Your task to perform on an android device: turn off smart reply in the gmail app Image 0: 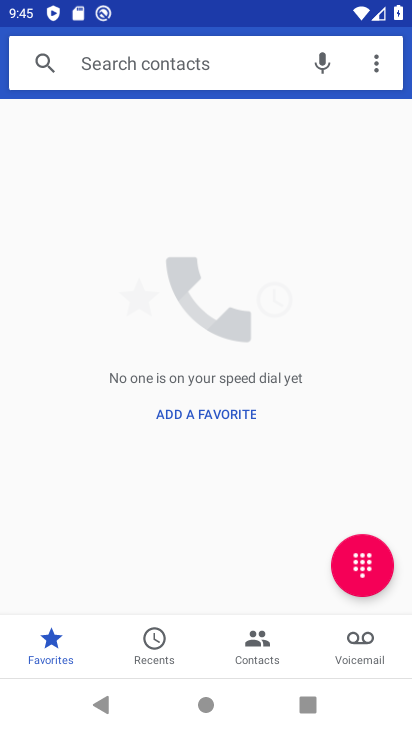
Step 0: drag from (200, 632) to (230, 77)
Your task to perform on an android device: turn off smart reply in the gmail app Image 1: 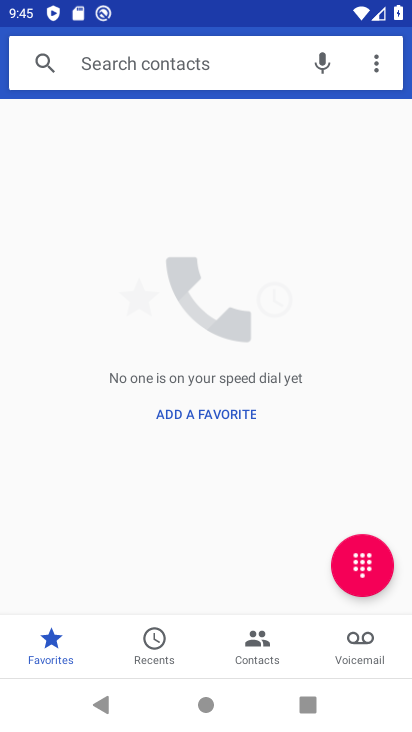
Step 1: press home button
Your task to perform on an android device: turn off smart reply in the gmail app Image 2: 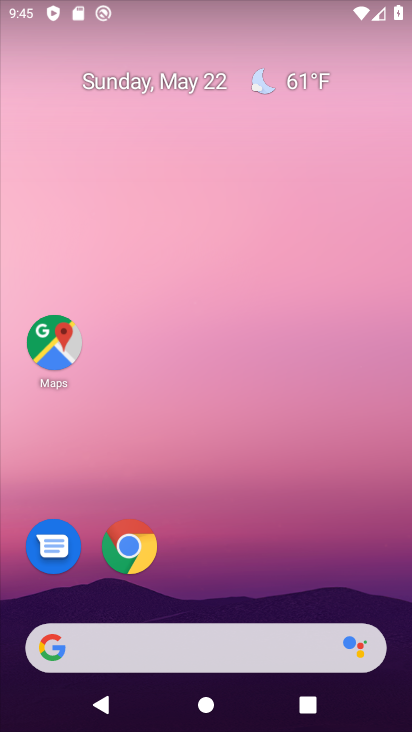
Step 2: drag from (174, 632) to (187, 175)
Your task to perform on an android device: turn off smart reply in the gmail app Image 3: 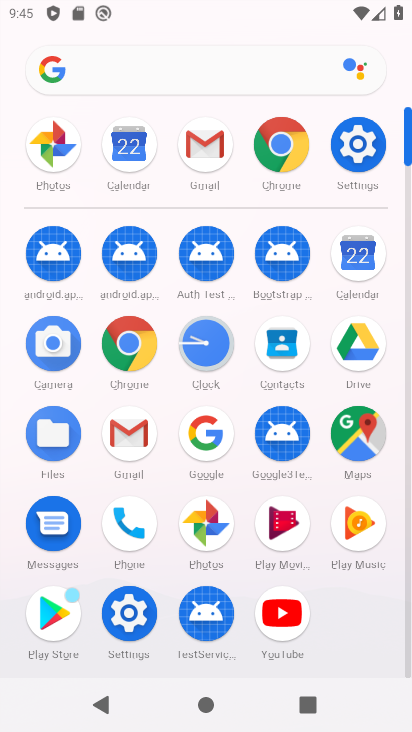
Step 3: click (206, 143)
Your task to perform on an android device: turn off smart reply in the gmail app Image 4: 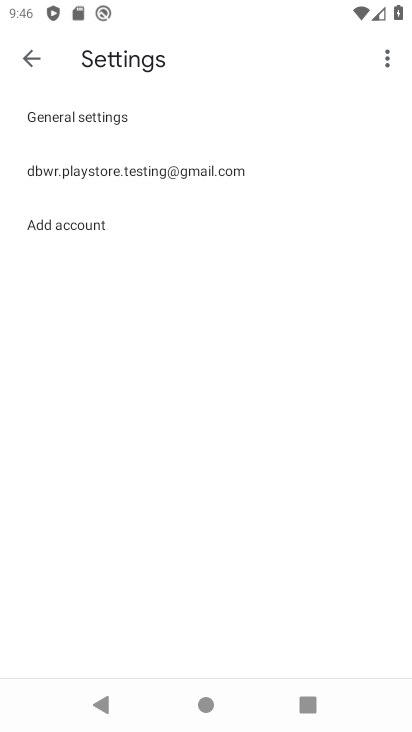
Step 4: click (124, 165)
Your task to perform on an android device: turn off smart reply in the gmail app Image 5: 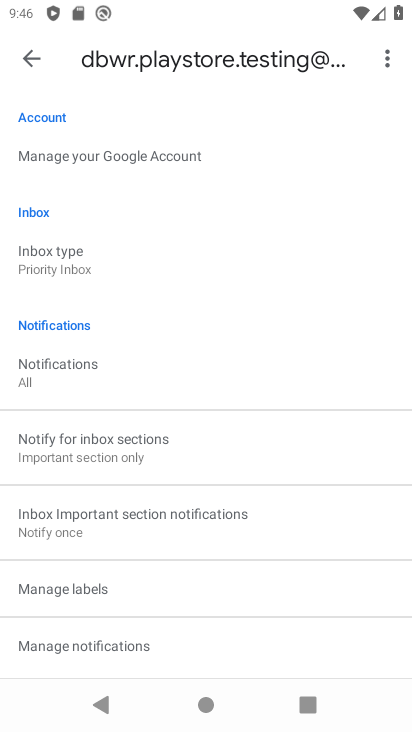
Step 5: drag from (134, 583) to (127, 61)
Your task to perform on an android device: turn off smart reply in the gmail app Image 6: 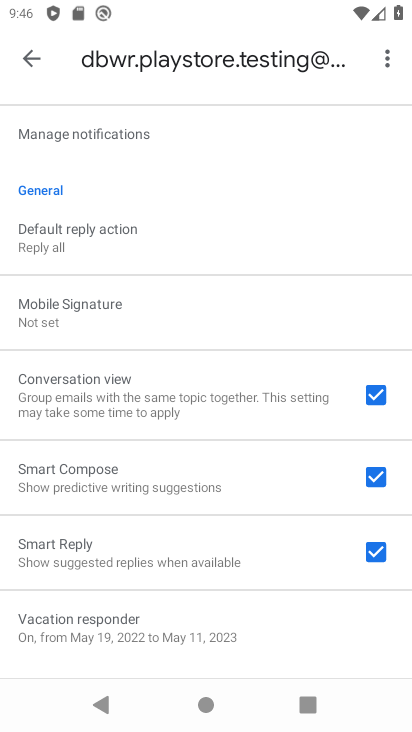
Step 6: click (377, 556)
Your task to perform on an android device: turn off smart reply in the gmail app Image 7: 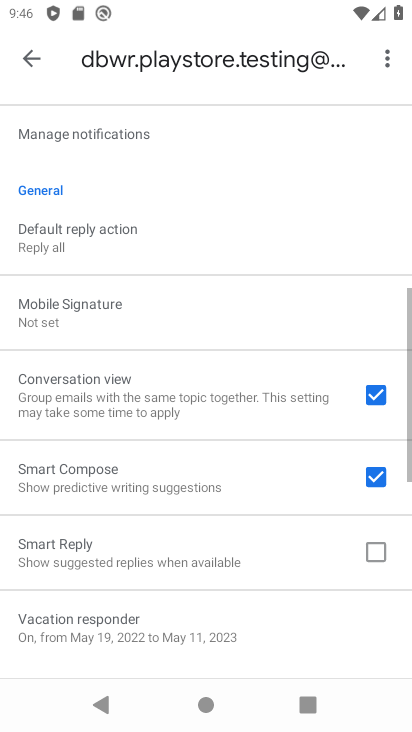
Step 7: task complete